Your task to perform on an android device: Is it going to rain today? Image 0: 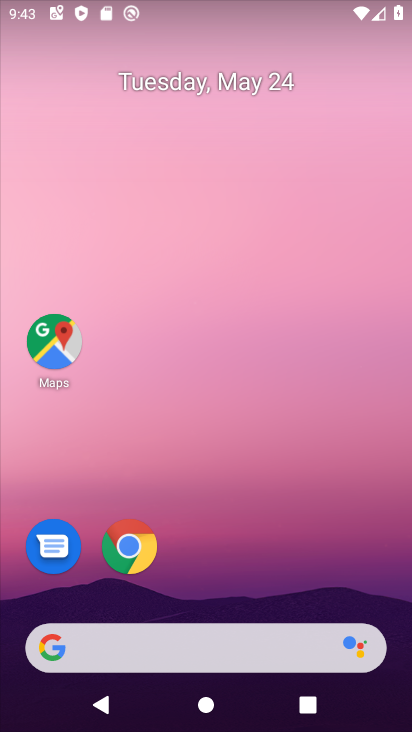
Step 0: drag from (197, 629) to (309, 159)
Your task to perform on an android device: Is it going to rain today? Image 1: 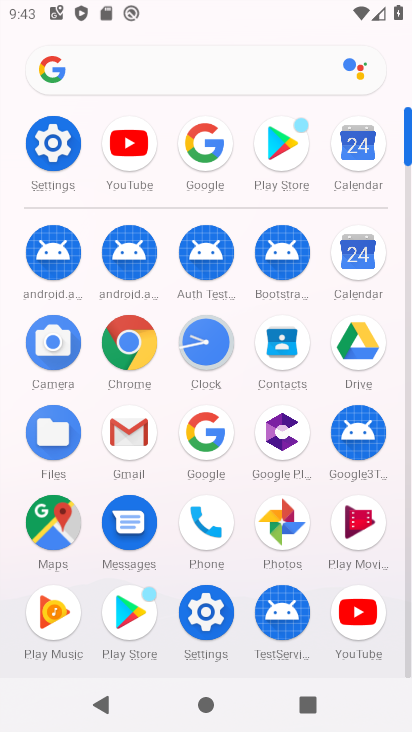
Step 1: click (63, 519)
Your task to perform on an android device: Is it going to rain today? Image 2: 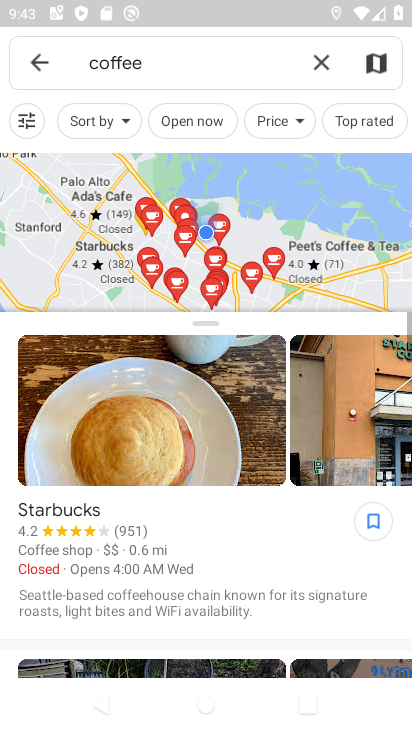
Step 2: click (315, 66)
Your task to perform on an android device: Is it going to rain today? Image 3: 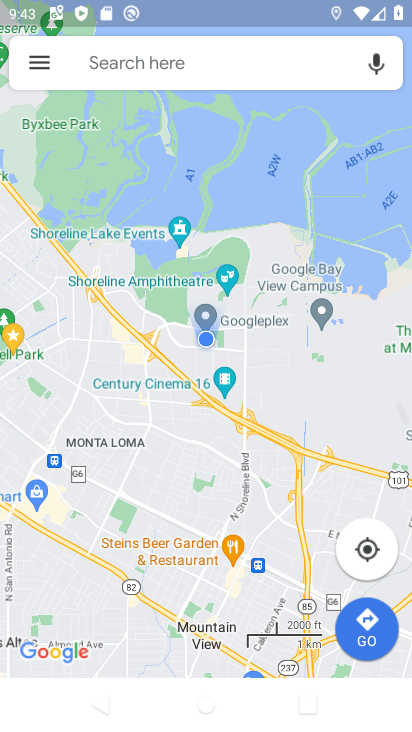
Step 3: click (192, 61)
Your task to perform on an android device: Is it going to rain today? Image 4: 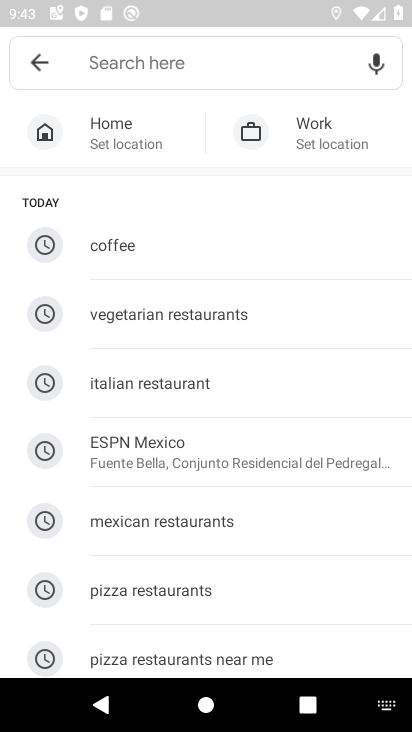
Step 4: task complete